Your task to perform on an android device: Play the last video I watched on Youtube Image 0: 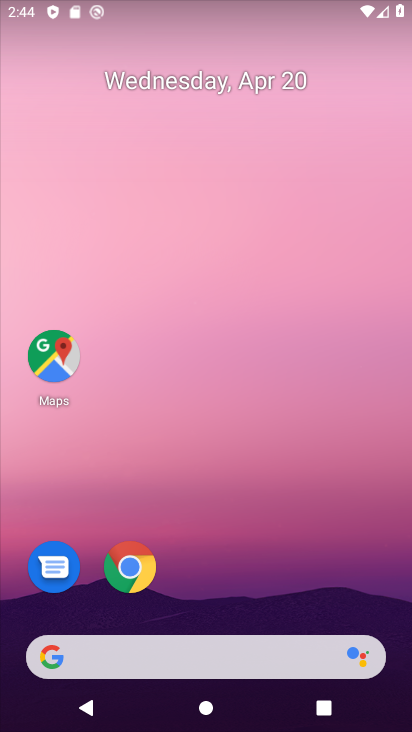
Step 0: drag from (210, 554) to (258, 134)
Your task to perform on an android device: Play the last video I watched on Youtube Image 1: 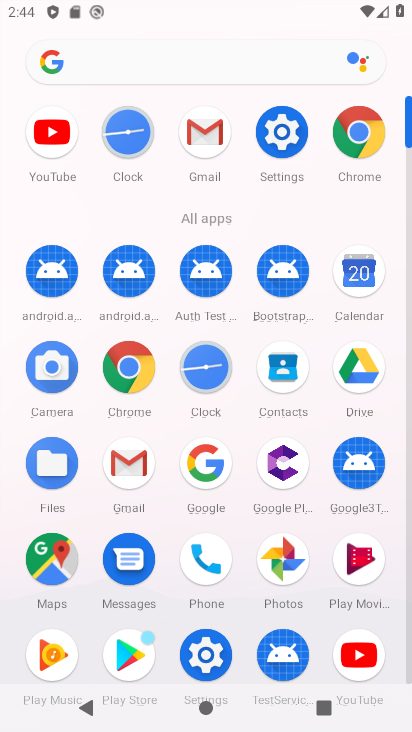
Step 1: click (48, 124)
Your task to perform on an android device: Play the last video I watched on Youtube Image 2: 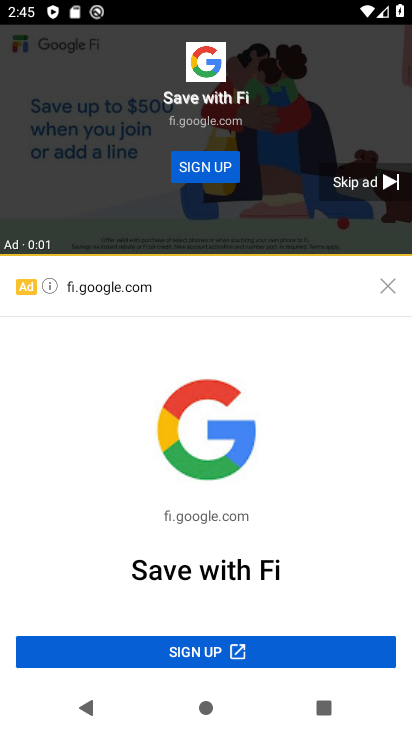
Step 2: click (380, 179)
Your task to perform on an android device: Play the last video I watched on Youtube Image 3: 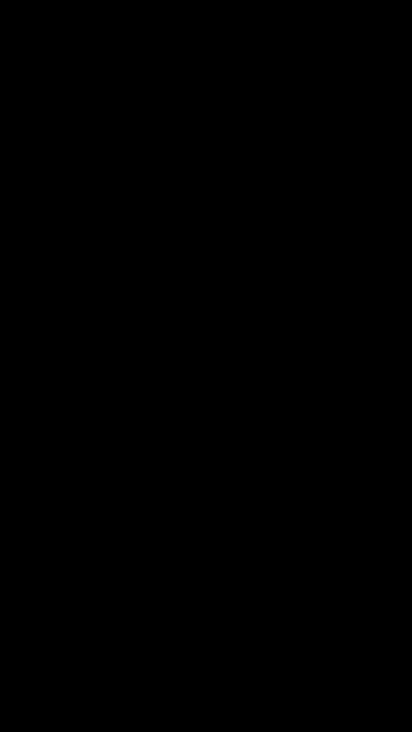
Step 3: click (182, 267)
Your task to perform on an android device: Play the last video I watched on Youtube Image 4: 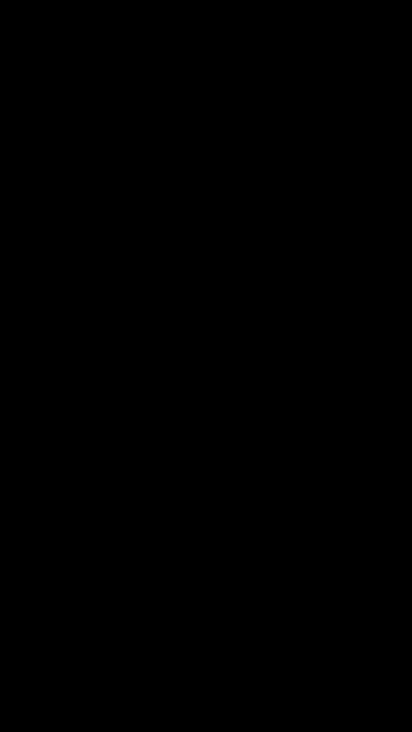
Step 4: drag from (173, 474) to (239, 260)
Your task to perform on an android device: Play the last video I watched on Youtube Image 5: 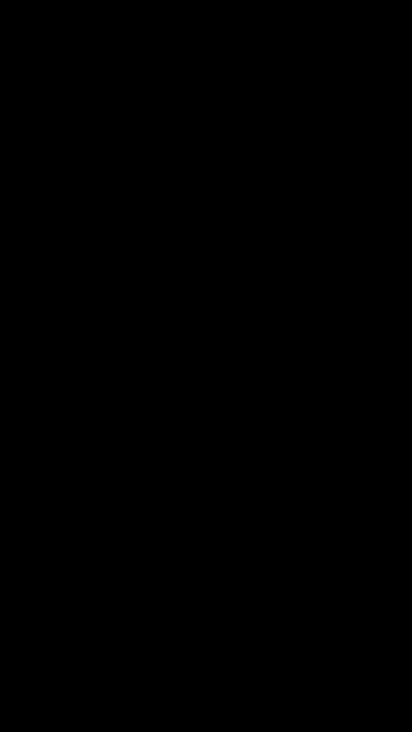
Step 5: drag from (218, 354) to (229, 154)
Your task to perform on an android device: Play the last video I watched on Youtube Image 6: 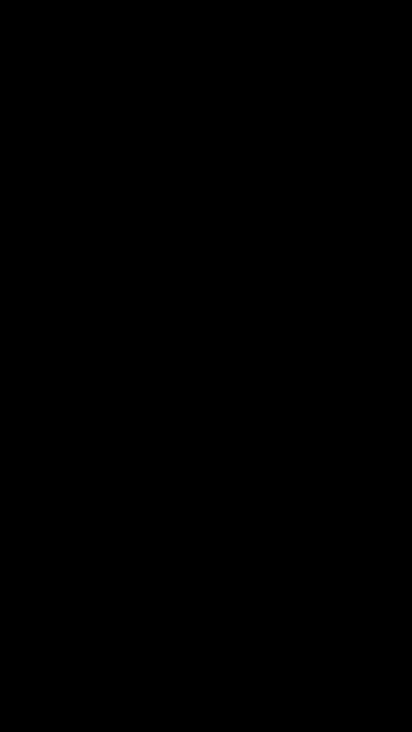
Step 6: drag from (298, 388) to (149, 305)
Your task to perform on an android device: Play the last video I watched on Youtube Image 7: 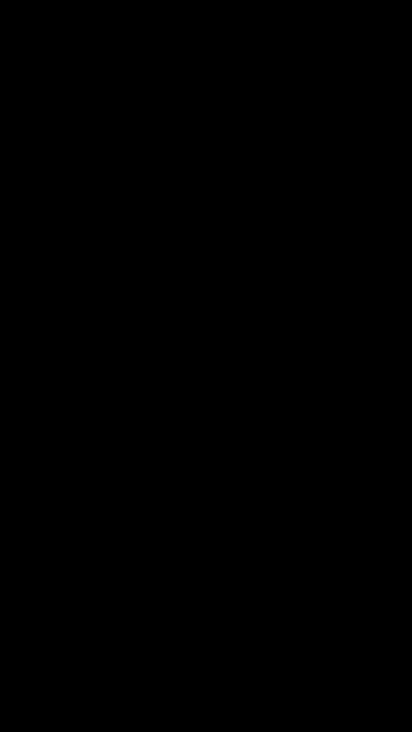
Step 7: drag from (134, 485) to (279, 121)
Your task to perform on an android device: Play the last video I watched on Youtube Image 8: 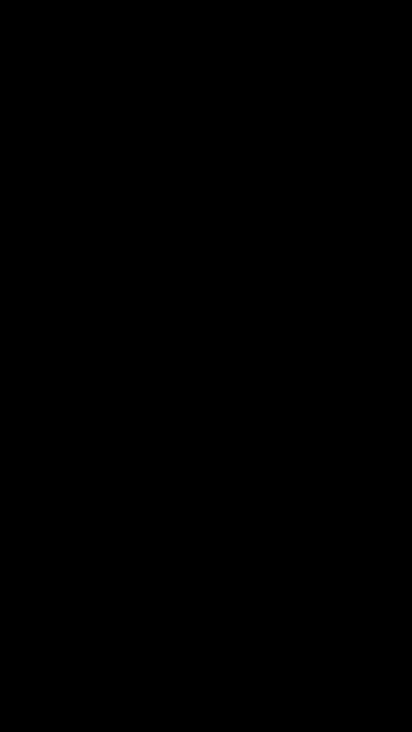
Step 8: drag from (226, 411) to (244, 45)
Your task to perform on an android device: Play the last video I watched on Youtube Image 9: 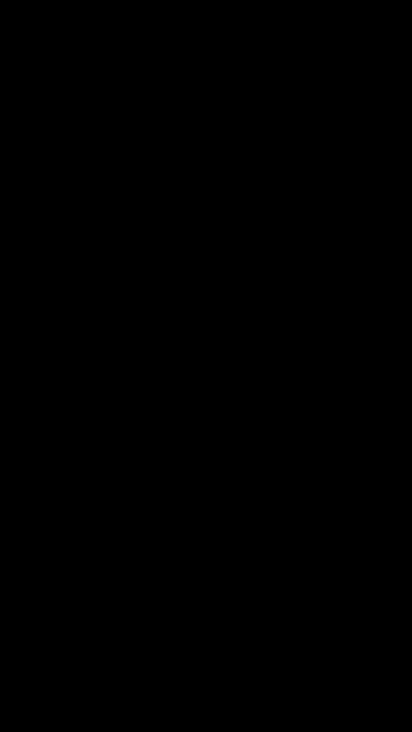
Step 9: click (188, 276)
Your task to perform on an android device: Play the last video I watched on Youtube Image 10: 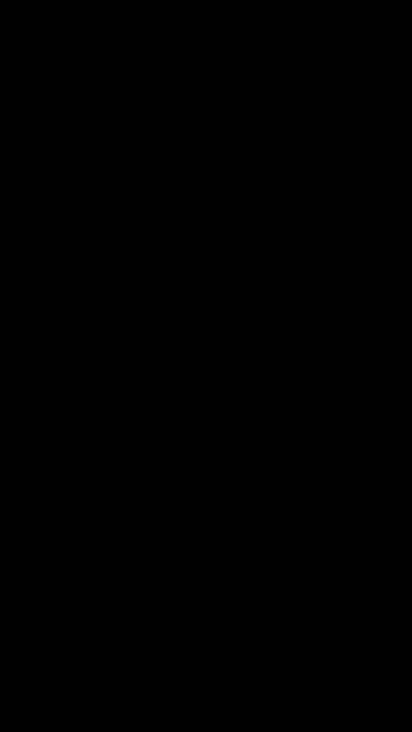
Step 10: click (168, 441)
Your task to perform on an android device: Play the last video I watched on Youtube Image 11: 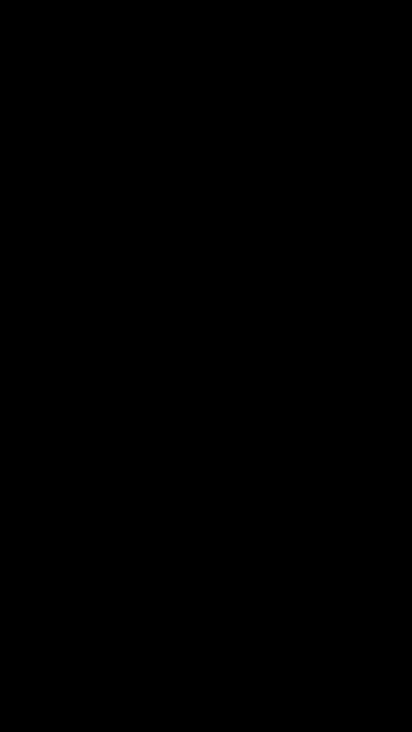
Step 11: click (161, 627)
Your task to perform on an android device: Play the last video I watched on Youtube Image 12: 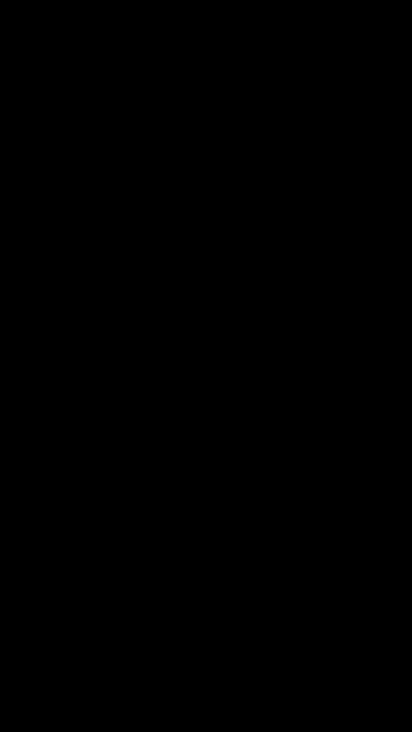
Step 12: click (203, 704)
Your task to perform on an android device: Play the last video I watched on Youtube Image 13: 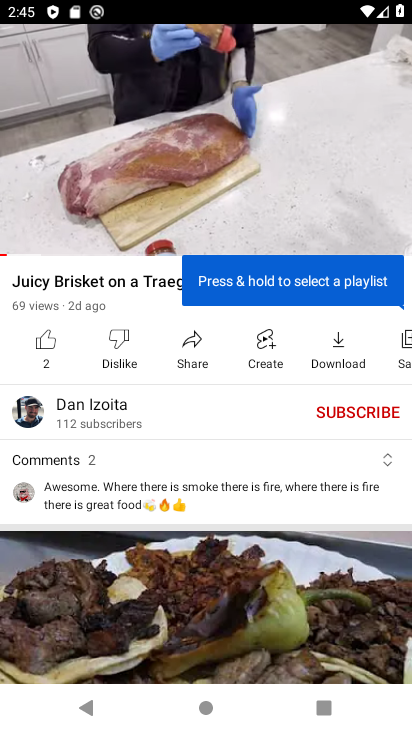
Step 13: press back button
Your task to perform on an android device: Play the last video I watched on Youtube Image 14: 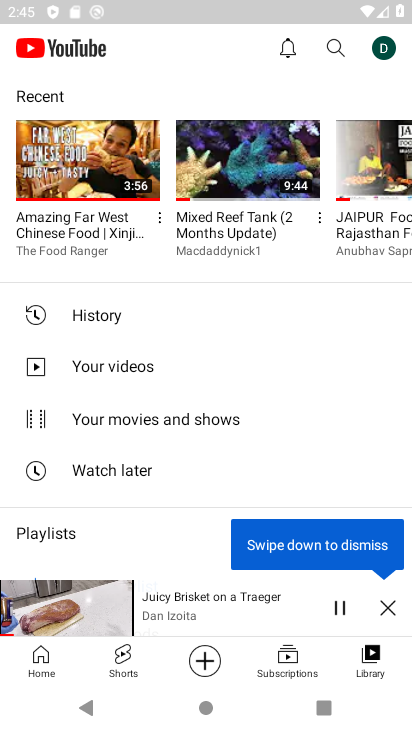
Step 14: click (389, 606)
Your task to perform on an android device: Play the last video I watched on Youtube Image 15: 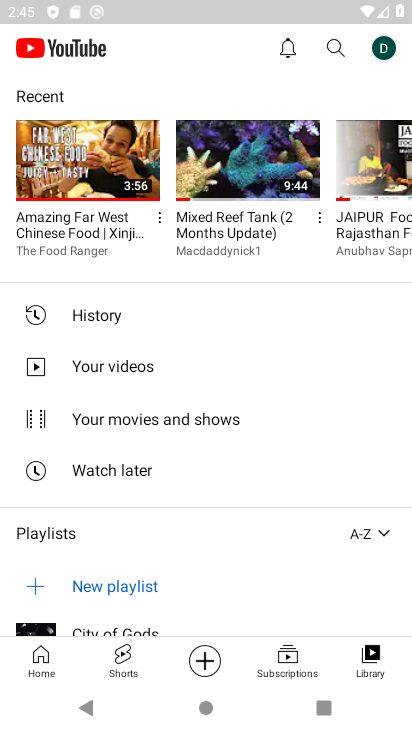
Step 15: click (63, 172)
Your task to perform on an android device: Play the last video I watched on Youtube Image 16: 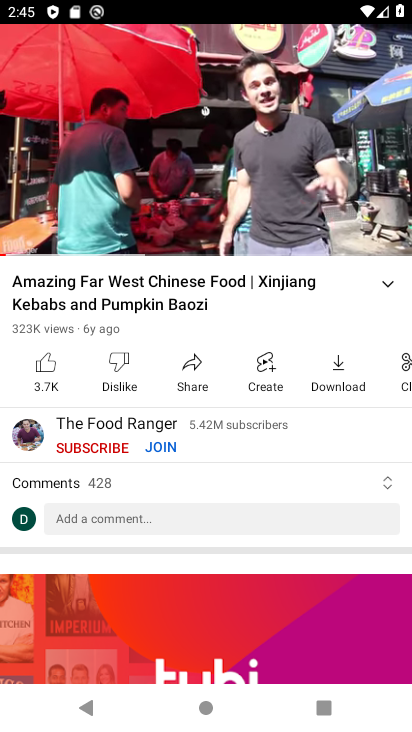
Step 16: task complete